Your task to perform on an android device: delete the emails in spam in the gmail app Image 0: 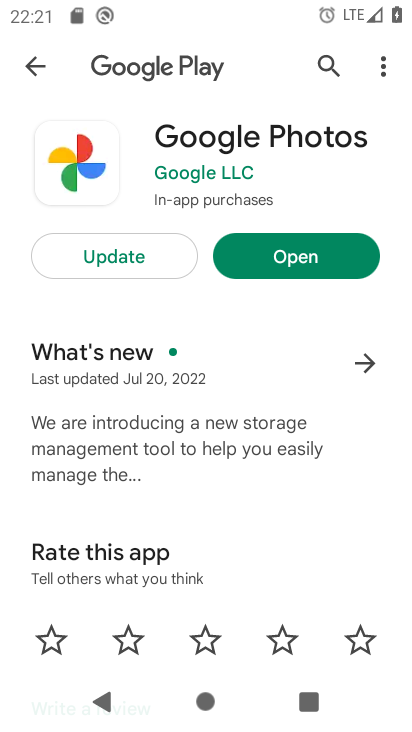
Step 0: press home button
Your task to perform on an android device: delete the emails in spam in the gmail app Image 1: 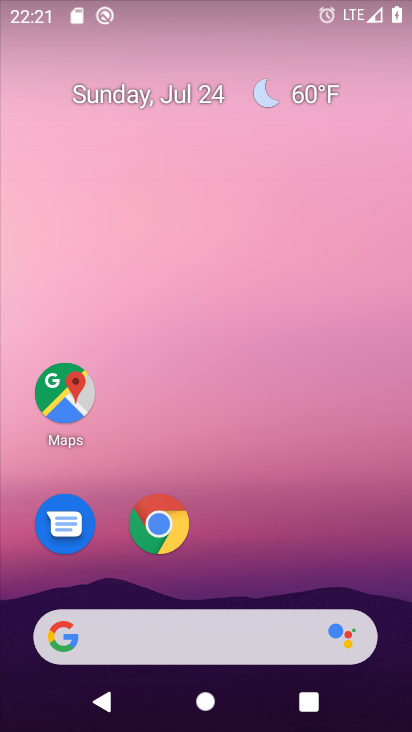
Step 1: drag from (274, 567) to (259, 30)
Your task to perform on an android device: delete the emails in spam in the gmail app Image 2: 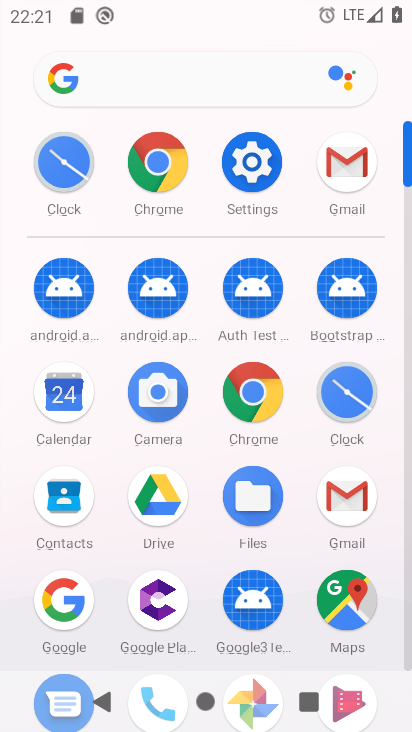
Step 2: click (336, 165)
Your task to perform on an android device: delete the emails in spam in the gmail app Image 3: 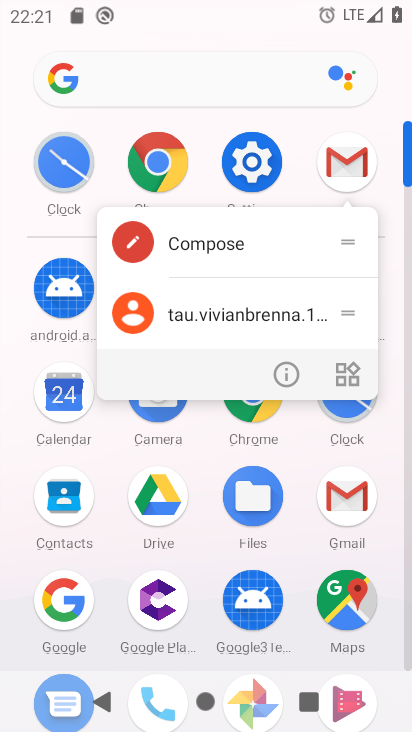
Step 3: click (342, 152)
Your task to perform on an android device: delete the emails in spam in the gmail app Image 4: 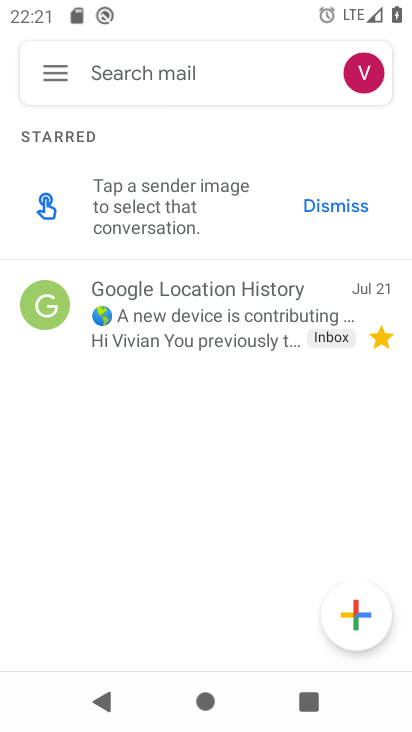
Step 4: click (57, 73)
Your task to perform on an android device: delete the emails in spam in the gmail app Image 5: 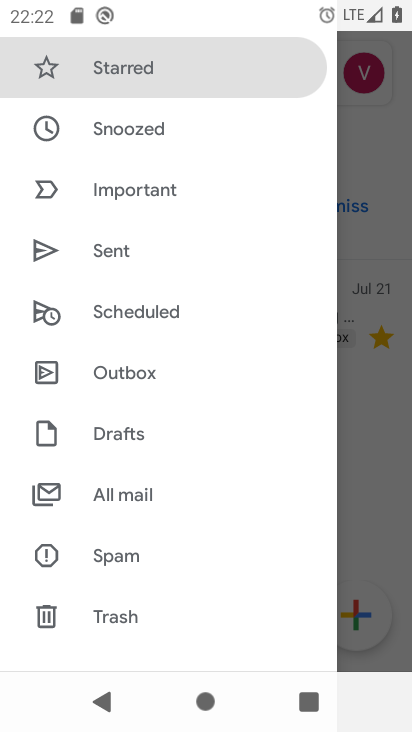
Step 5: click (128, 547)
Your task to perform on an android device: delete the emails in spam in the gmail app Image 6: 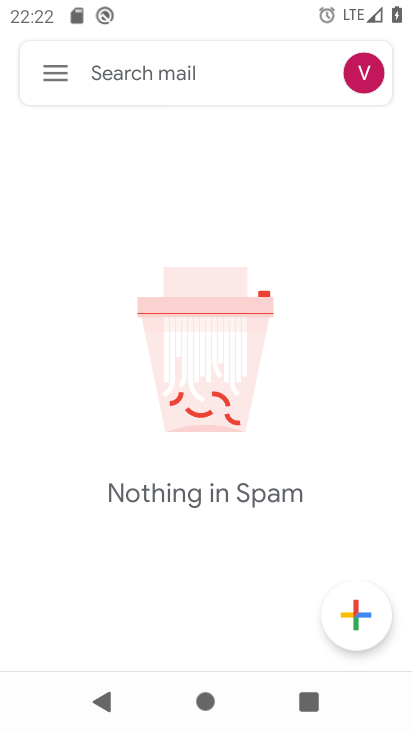
Step 6: task complete